Your task to perform on an android device: turn off picture-in-picture Image 0: 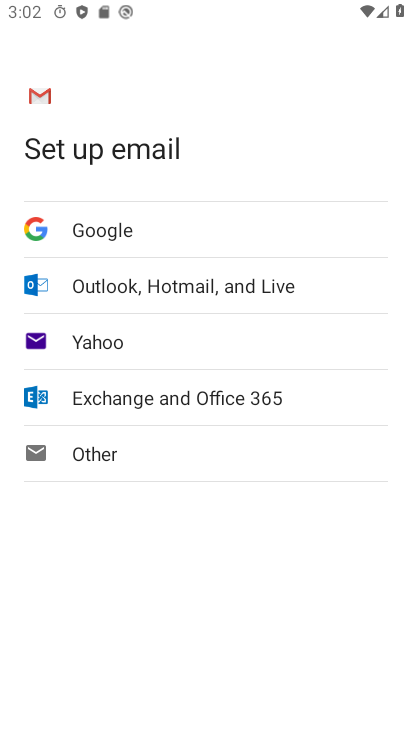
Step 0: press home button
Your task to perform on an android device: turn off picture-in-picture Image 1: 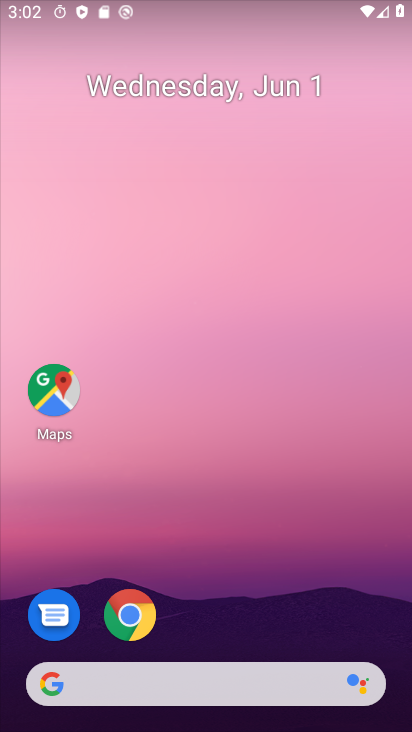
Step 1: drag from (303, 693) to (358, 93)
Your task to perform on an android device: turn off picture-in-picture Image 2: 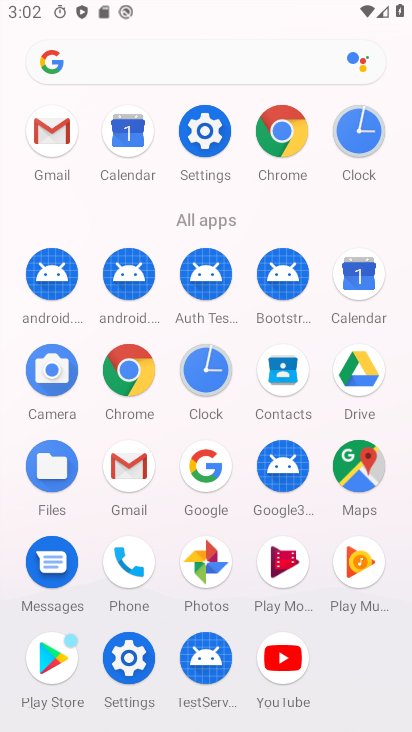
Step 2: click (204, 126)
Your task to perform on an android device: turn off picture-in-picture Image 3: 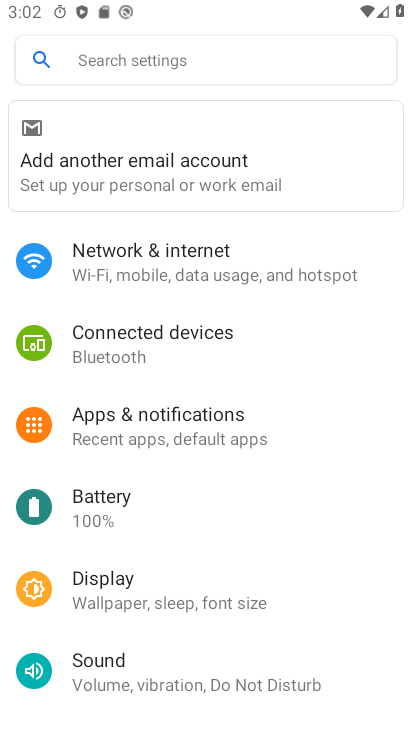
Step 3: drag from (207, 639) to (264, 281)
Your task to perform on an android device: turn off picture-in-picture Image 4: 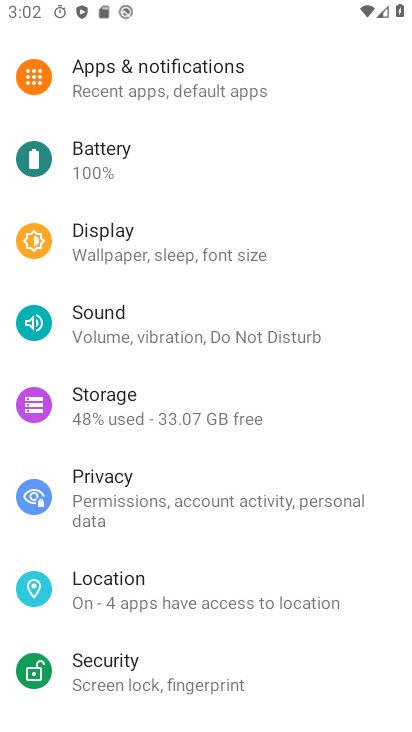
Step 4: click (185, 91)
Your task to perform on an android device: turn off picture-in-picture Image 5: 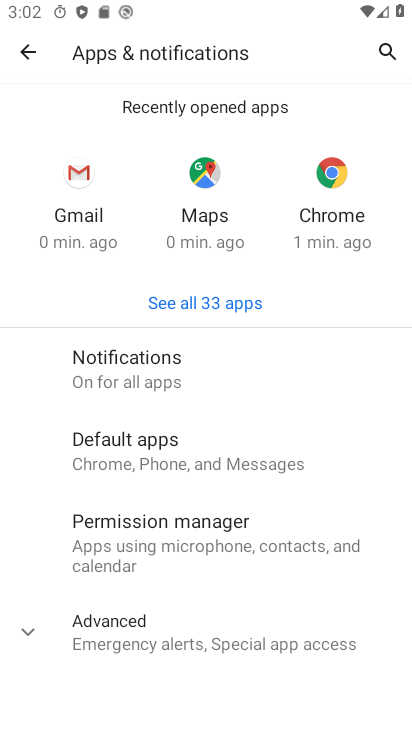
Step 5: click (186, 652)
Your task to perform on an android device: turn off picture-in-picture Image 6: 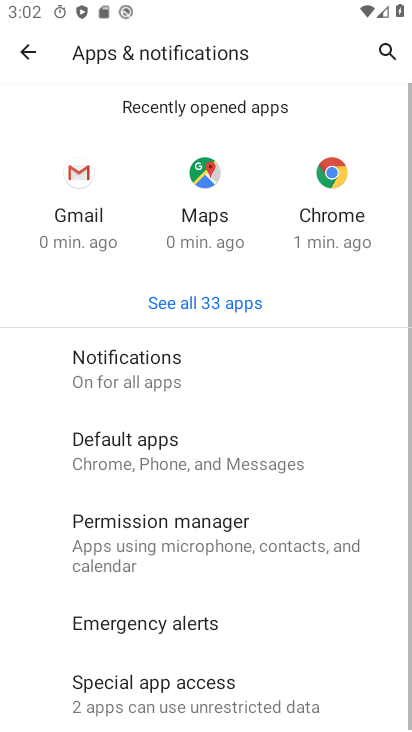
Step 6: click (177, 687)
Your task to perform on an android device: turn off picture-in-picture Image 7: 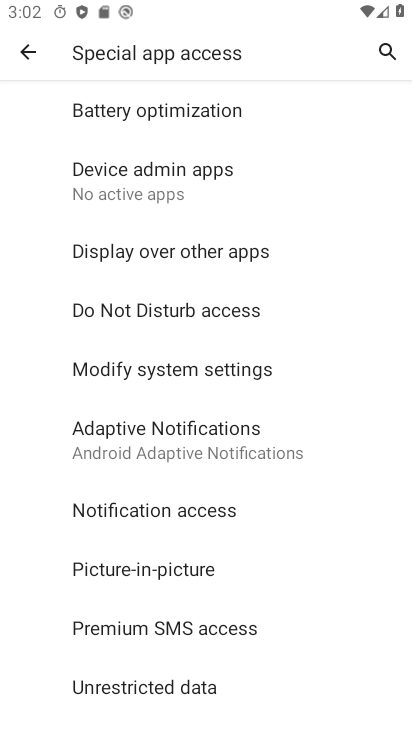
Step 7: click (193, 572)
Your task to perform on an android device: turn off picture-in-picture Image 8: 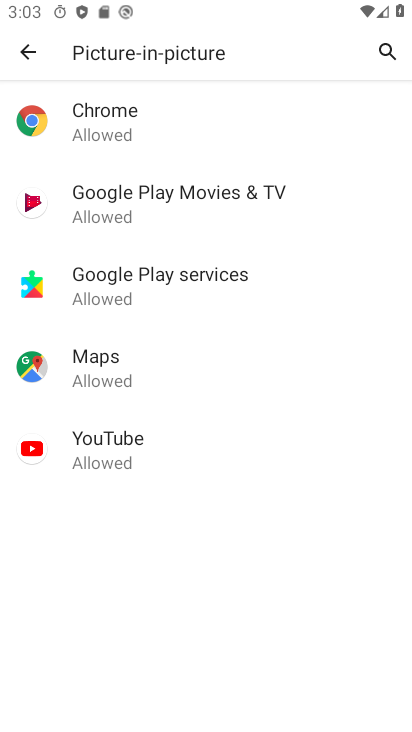
Step 8: click (165, 108)
Your task to perform on an android device: turn off picture-in-picture Image 9: 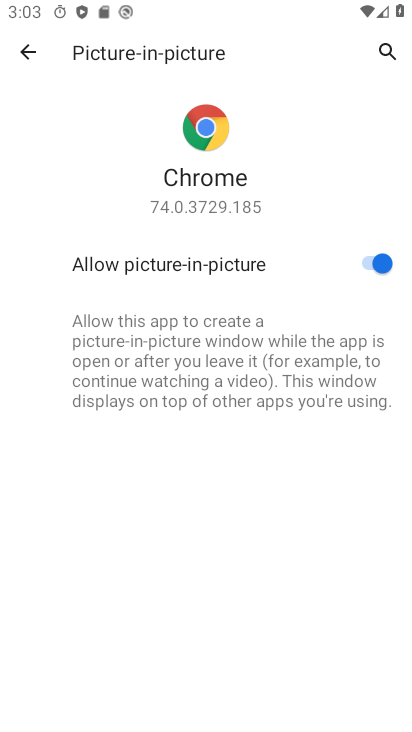
Step 9: click (367, 259)
Your task to perform on an android device: turn off picture-in-picture Image 10: 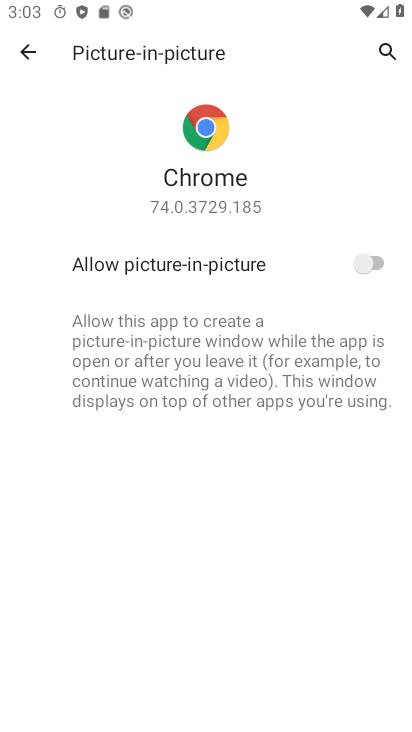
Step 10: press back button
Your task to perform on an android device: turn off picture-in-picture Image 11: 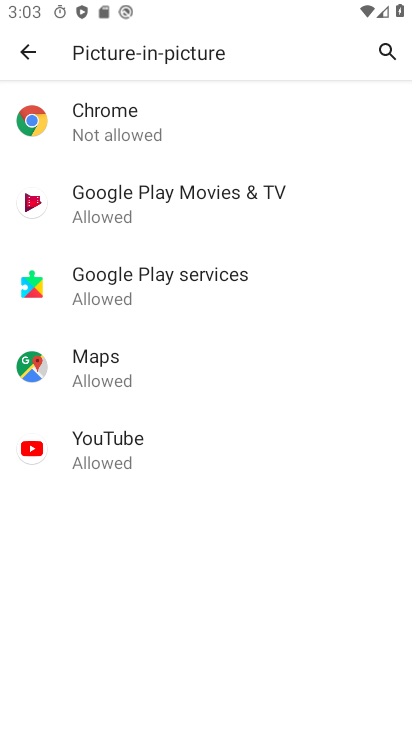
Step 11: click (275, 196)
Your task to perform on an android device: turn off picture-in-picture Image 12: 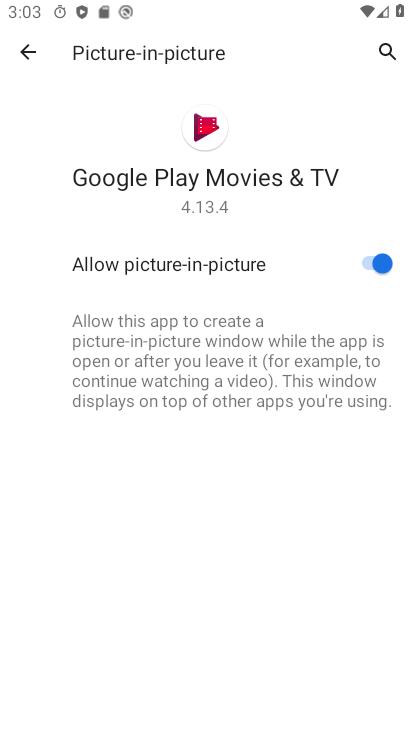
Step 12: click (371, 263)
Your task to perform on an android device: turn off picture-in-picture Image 13: 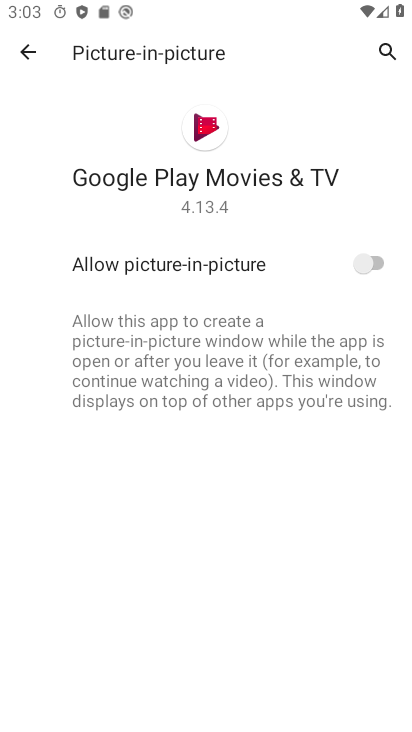
Step 13: press back button
Your task to perform on an android device: turn off picture-in-picture Image 14: 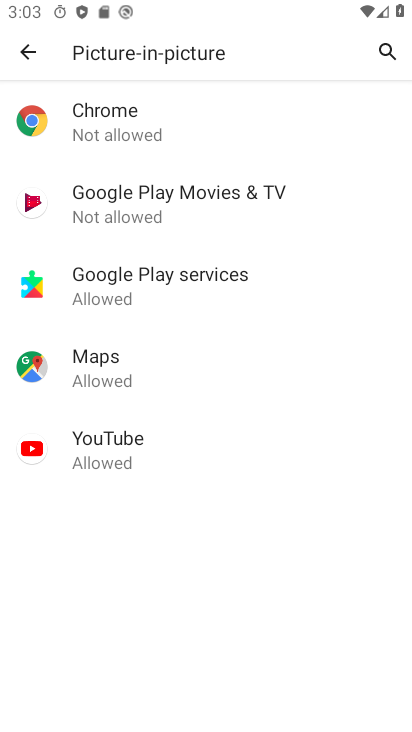
Step 14: click (249, 292)
Your task to perform on an android device: turn off picture-in-picture Image 15: 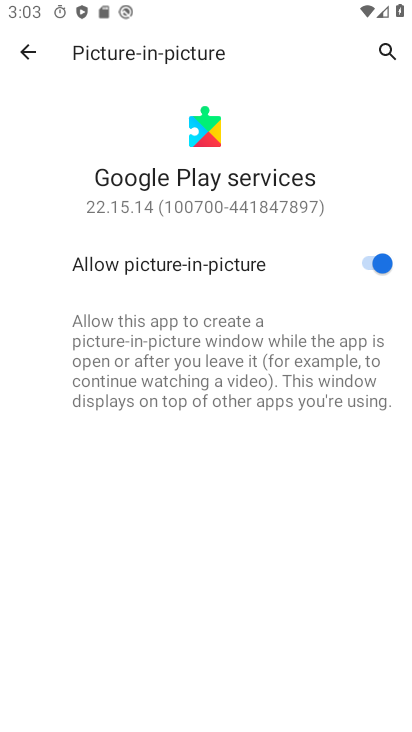
Step 15: click (366, 263)
Your task to perform on an android device: turn off picture-in-picture Image 16: 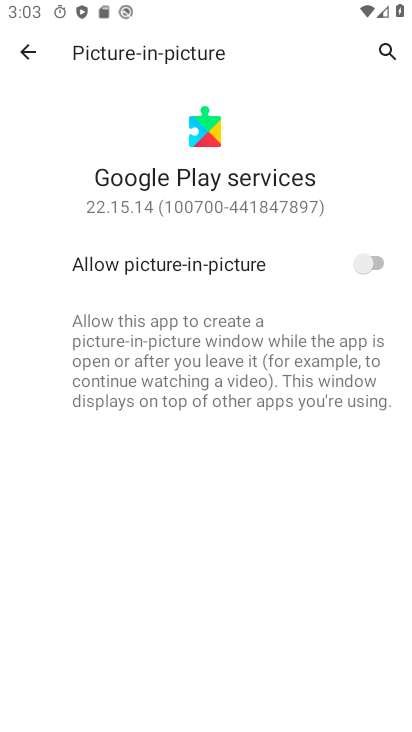
Step 16: press back button
Your task to perform on an android device: turn off picture-in-picture Image 17: 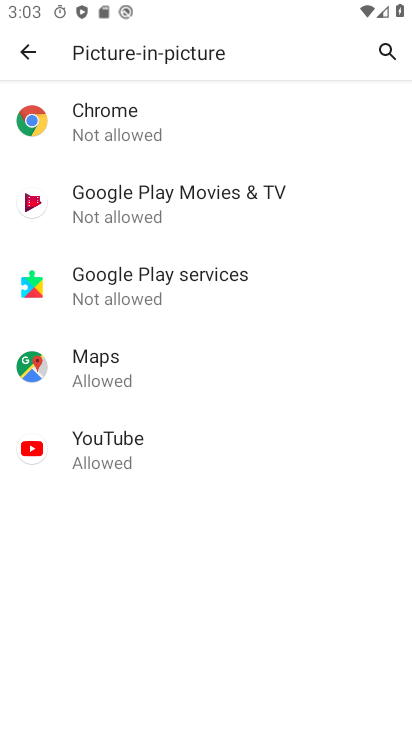
Step 17: click (290, 365)
Your task to perform on an android device: turn off picture-in-picture Image 18: 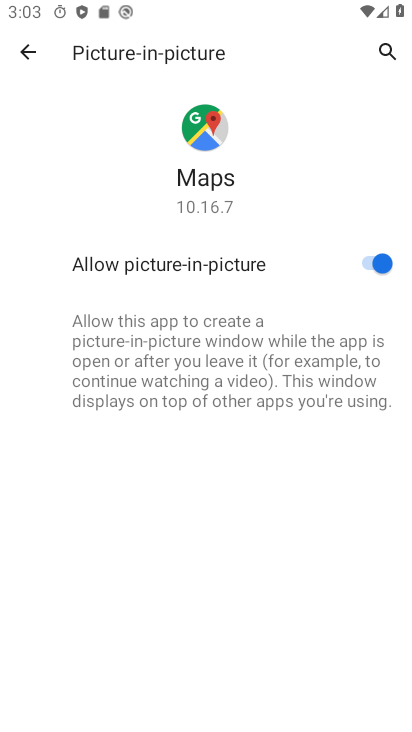
Step 18: click (377, 264)
Your task to perform on an android device: turn off picture-in-picture Image 19: 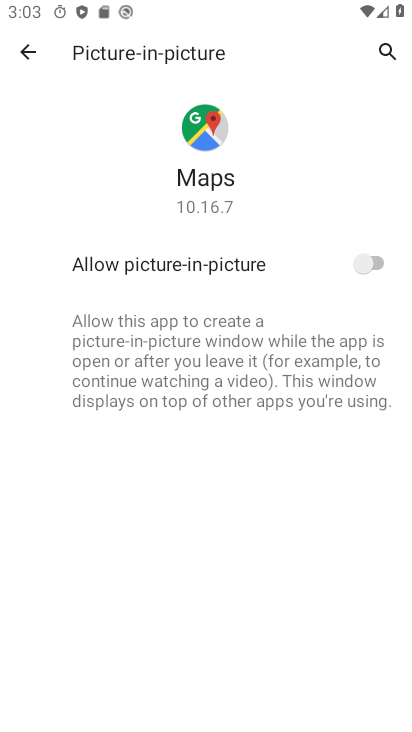
Step 19: press back button
Your task to perform on an android device: turn off picture-in-picture Image 20: 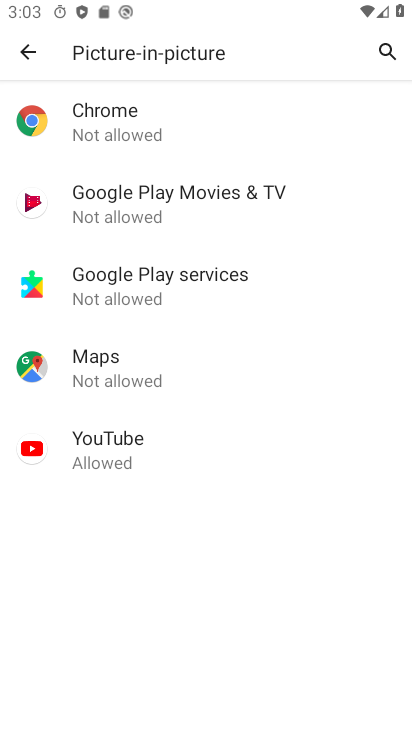
Step 20: click (322, 453)
Your task to perform on an android device: turn off picture-in-picture Image 21: 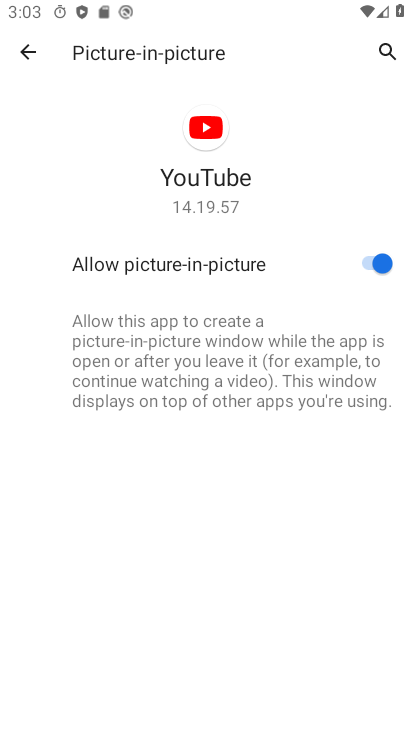
Step 21: click (369, 262)
Your task to perform on an android device: turn off picture-in-picture Image 22: 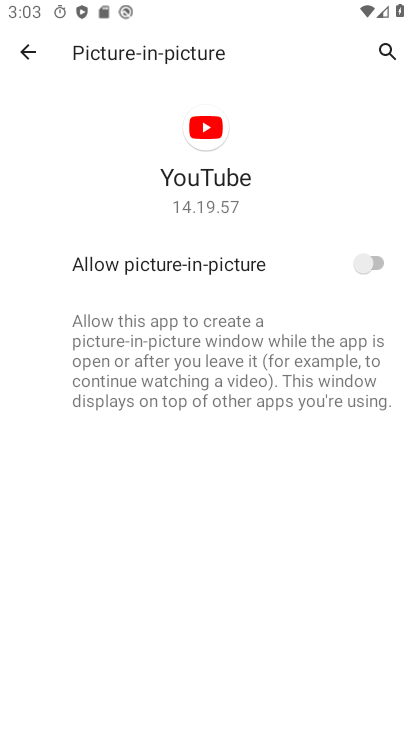
Step 22: task complete